Your task to perform on an android device: Search for the best rated 4k tvs on Walmart. Image 0: 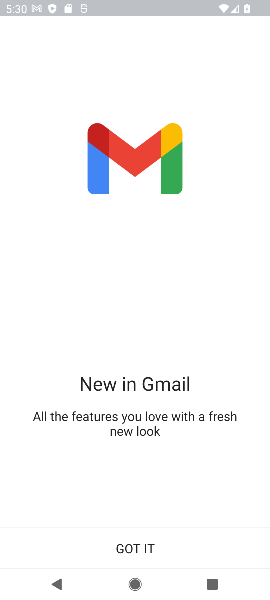
Step 0: press home button
Your task to perform on an android device: Search for the best rated 4k tvs on Walmart. Image 1: 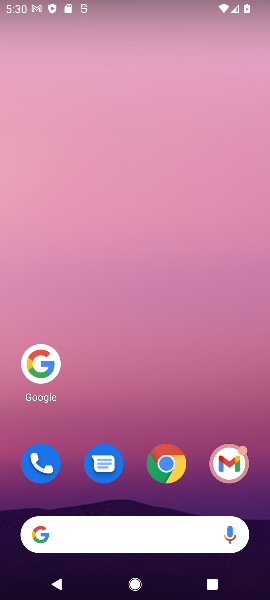
Step 1: click (37, 361)
Your task to perform on an android device: Search for the best rated 4k tvs on Walmart. Image 2: 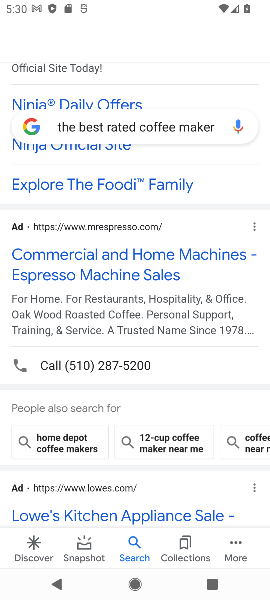
Step 2: click (165, 122)
Your task to perform on an android device: Search for the best rated 4k tvs on Walmart. Image 3: 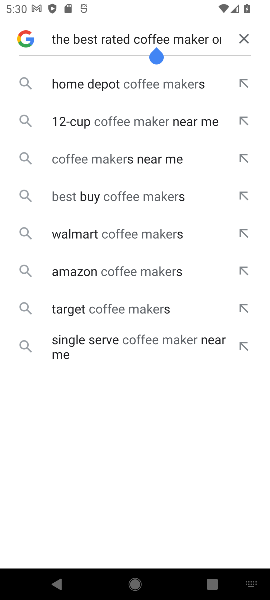
Step 3: click (243, 41)
Your task to perform on an android device: Search for the best rated 4k tvs on Walmart. Image 4: 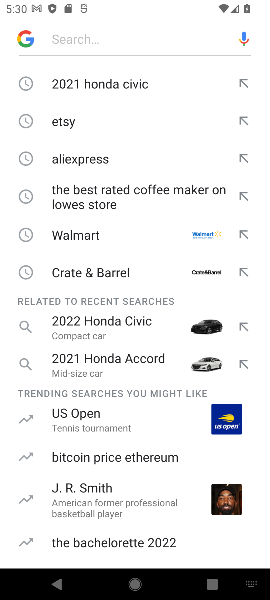
Step 4: click (137, 35)
Your task to perform on an android device: Search for the best rated 4k tvs on Walmart. Image 5: 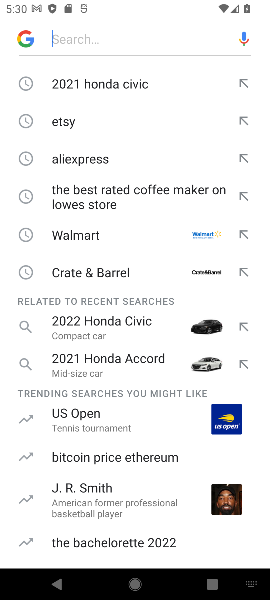
Step 5: type " the best rated 4k tvs on Walmart "
Your task to perform on an android device: Search for the best rated 4k tvs on Walmart. Image 6: 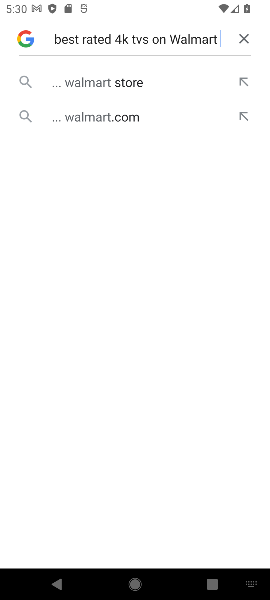
Step 6: click (118, 73)
Your task to perform on an android device: Search for the best rated 4k tvs on Walmart. Image 7: 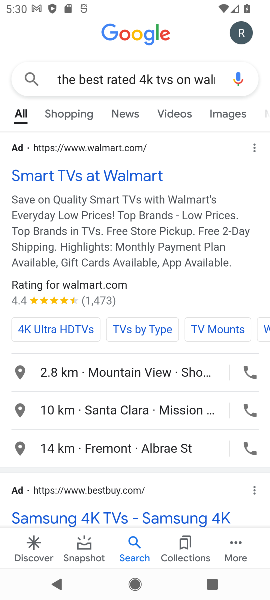
Step 7: task complete